Your task to perform on an android device: Clear all items from cart on ebay.com. Add macbook air to the cart on ebay.com, then select checkout. Image 0: 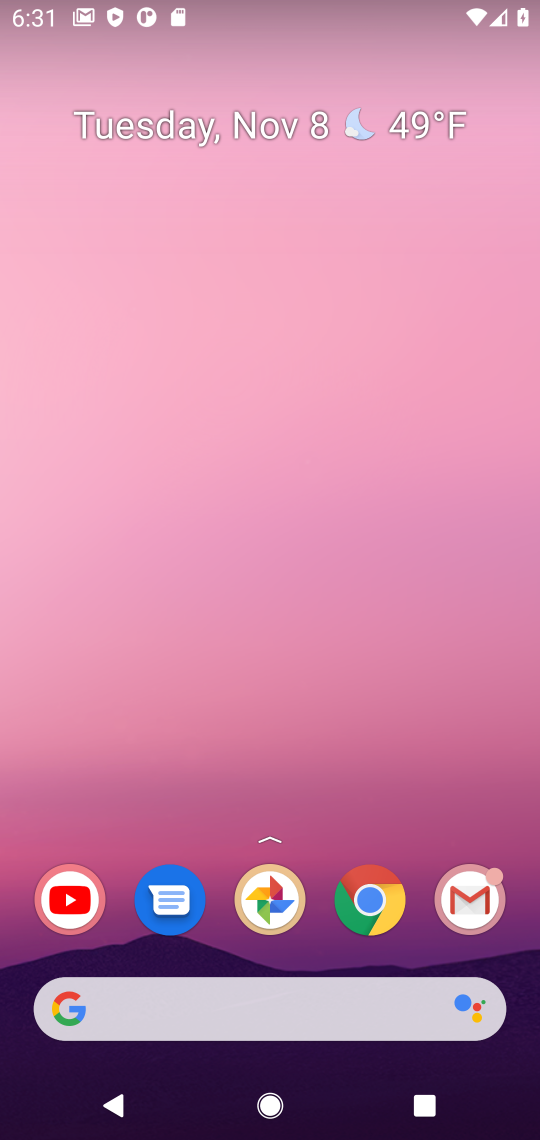
Step 0: click (348, 892)
Your task to perform on an android device: Clear all items from cart on ebay.com. Add macbook air to the cart on ebay.com, then select checkout. Image 1: 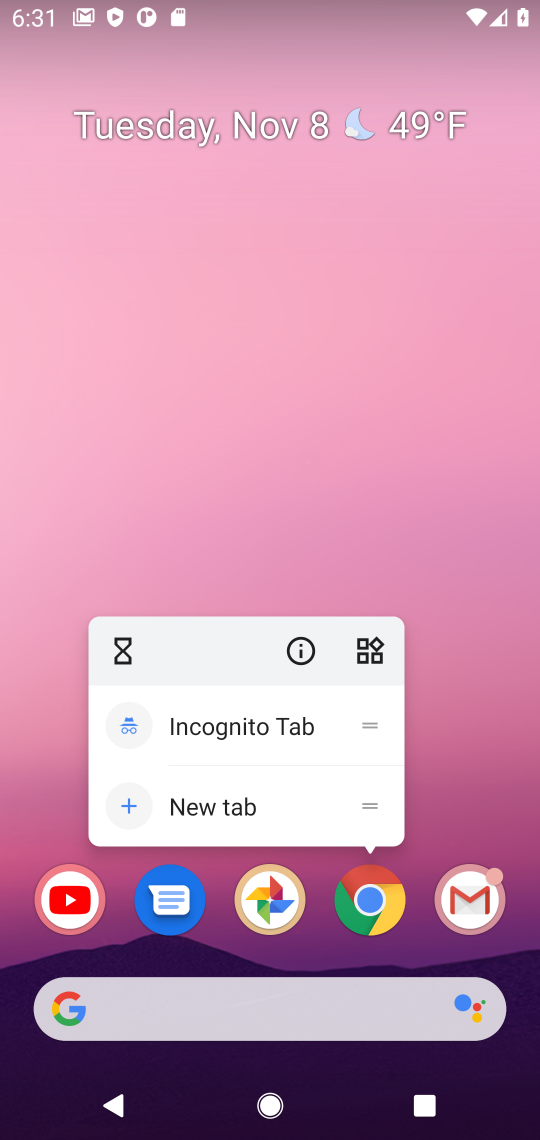
Step 1: click (371, 895)
Your task to perform on an android device: Clear all items from cart on ebay.com. Add macbook air to the cart on ebay.com, then select checkout. Image 2: 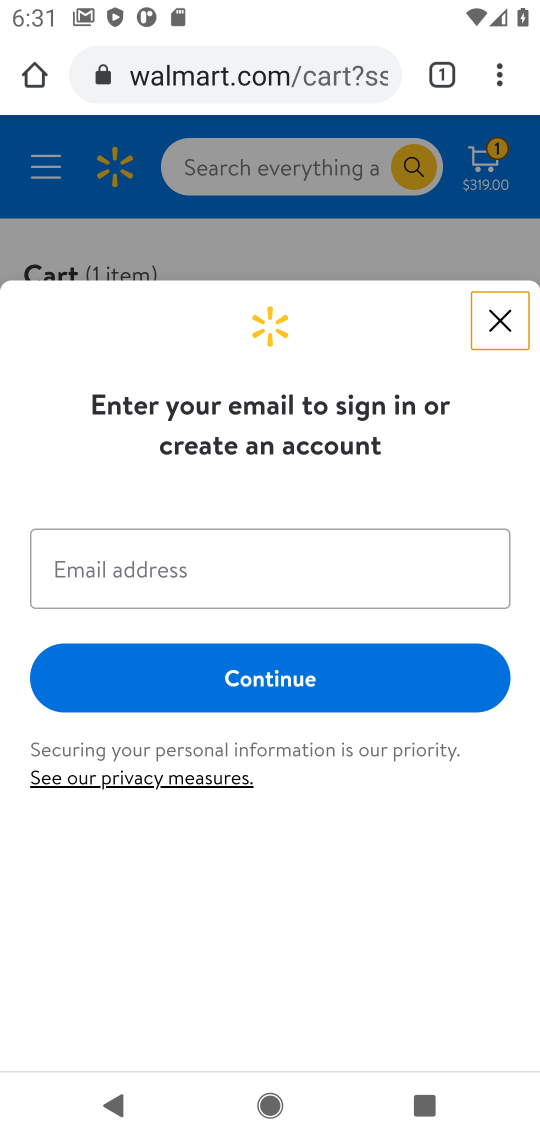
Step 2: click (293, 73)
Your task to perform on an android device: Clear all items from cart on ebay.com. Add macbook air to the cart on ebay.com, then select checkout. Image 3: 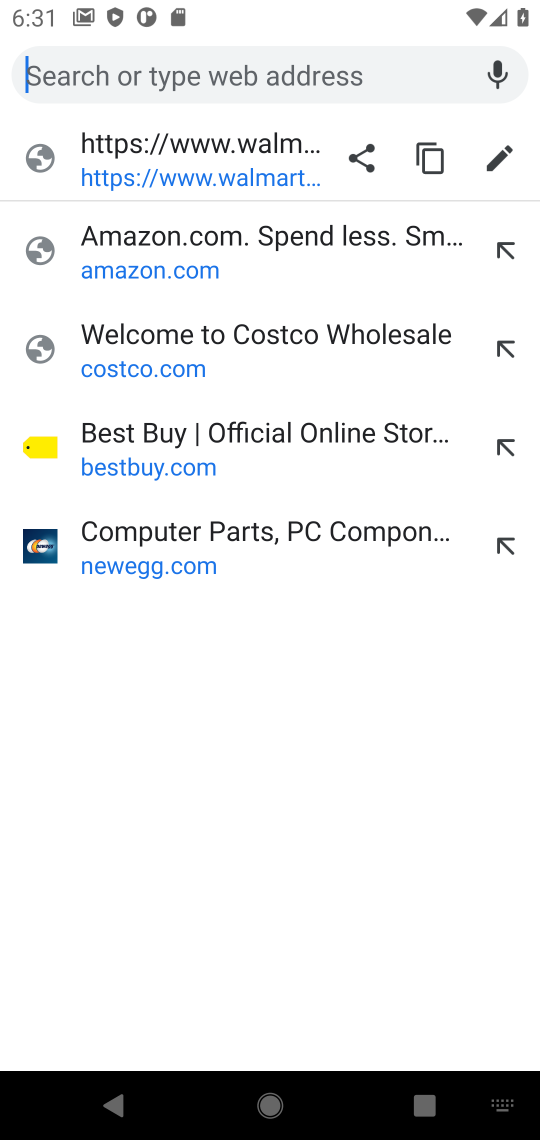
Step 3: type "ebay.com"
Your task to perform on an android device: Clear all items from cart on ebay.com. Add macbook air to the cart on ebay.com, then select checkout. Image 4: 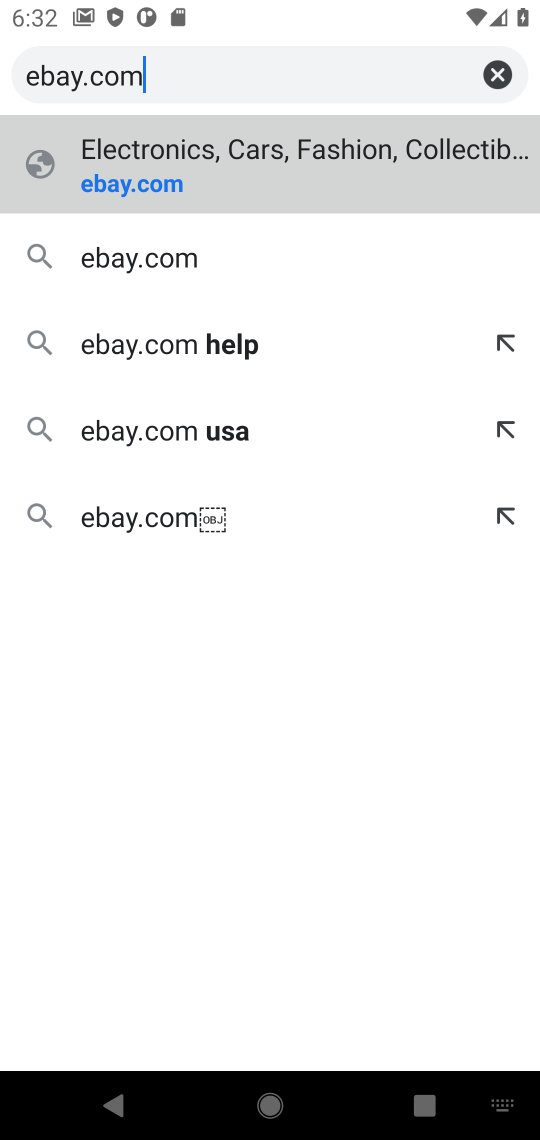
Step 4: press enter
Your task to perform on an android device: Clear all items from cart on ebay.com. Add macbook air to the cart on ebay.com, then select checkout. Image 5: 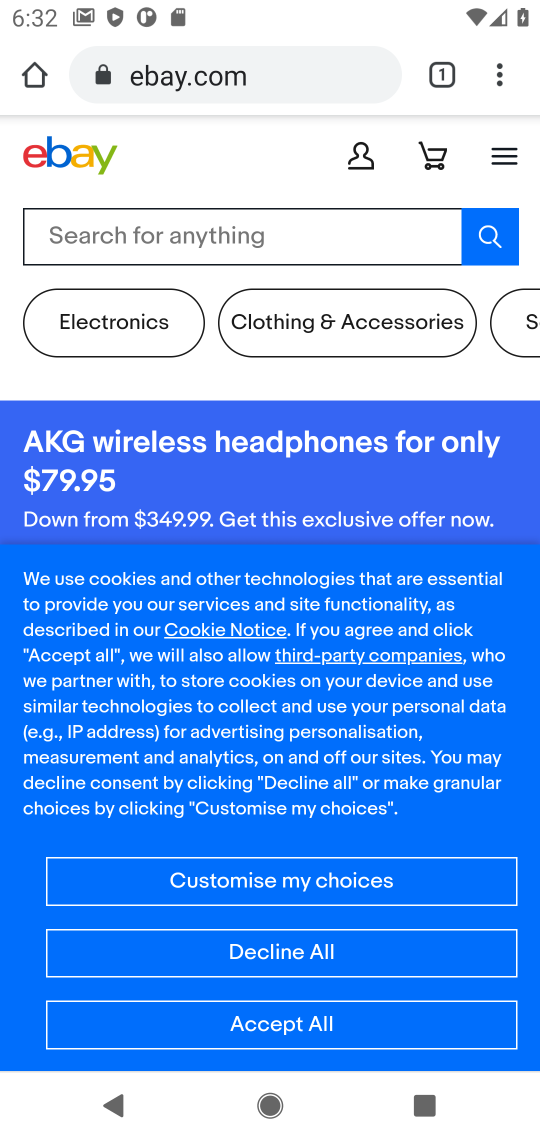
Step 5: click (432, 145)
Your task to perform on an android device: Clear all items from cart on ebay.com. Add macbook air to the cart on ebay.com, then select checkout. Image 6: 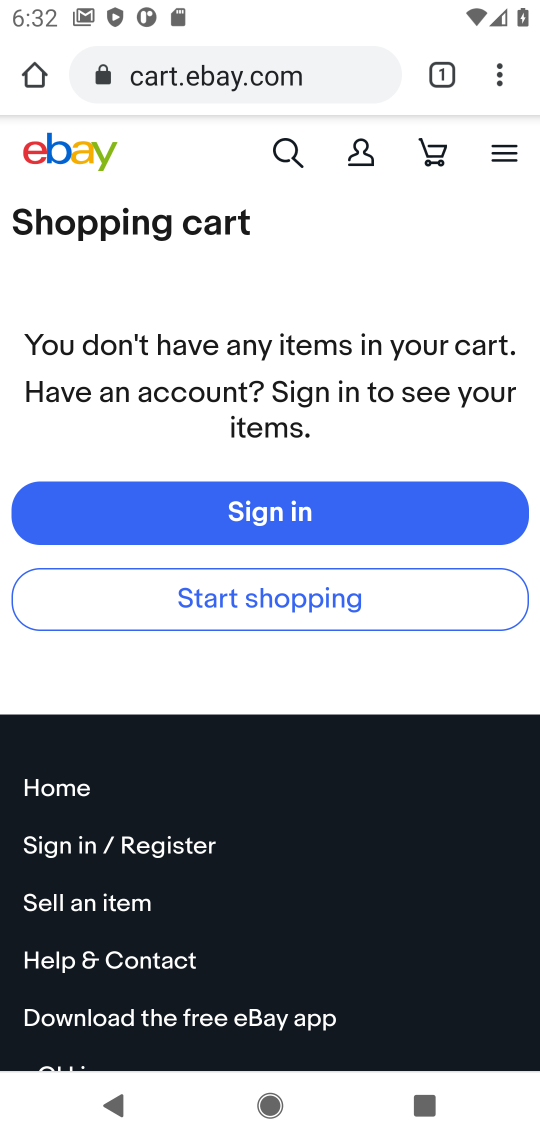
Step 6: click (293, 169)
Your task to perform on an android device: Clear all items from cart on ebay.com. Add macbook air to the cart on ebay.com, then select checkout. Image 7: 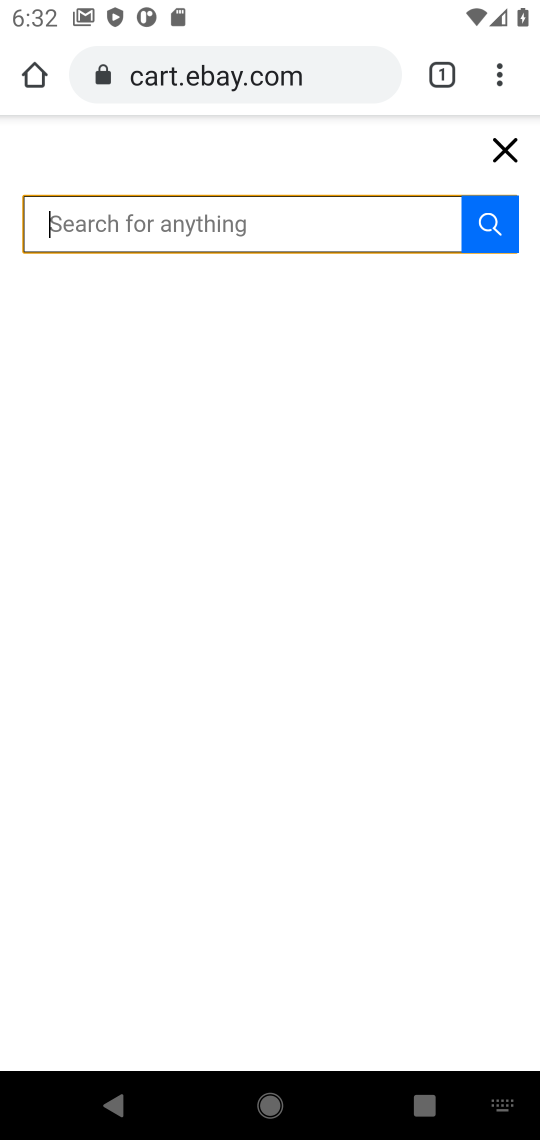
Step 7: type "macbook air "
Your task to perform on an android device: Clear all items from cart on ebay.com. Add macbook air to the cart on ebay.com, then select checkout. Image 8: 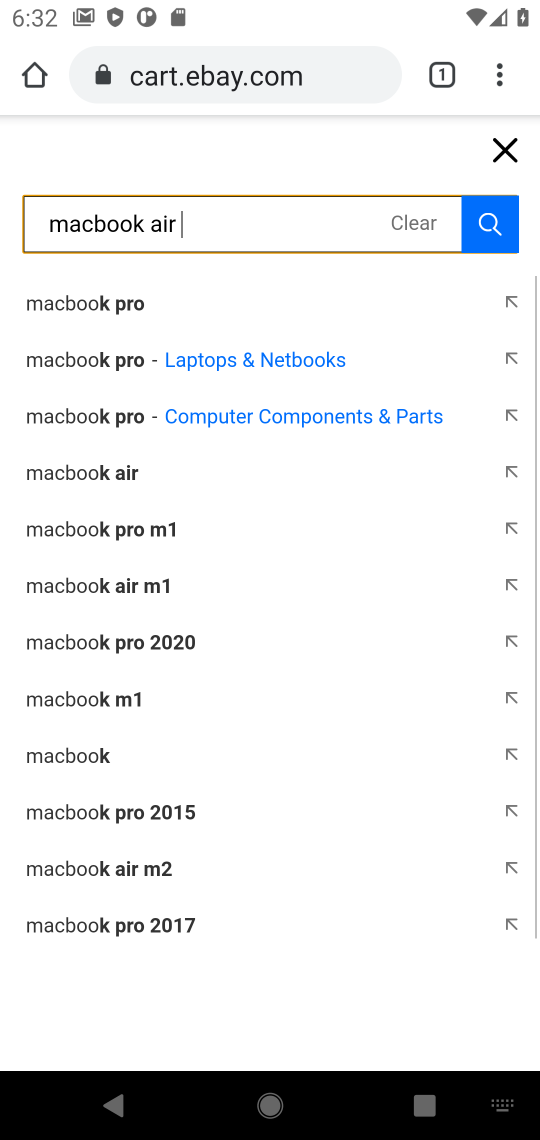
Step 8: type ""
Your task to perform on an android device: Clear all items from cart on ebay.com. Add macbook air to the cart on ebay.com, then select checkout. Image 9: 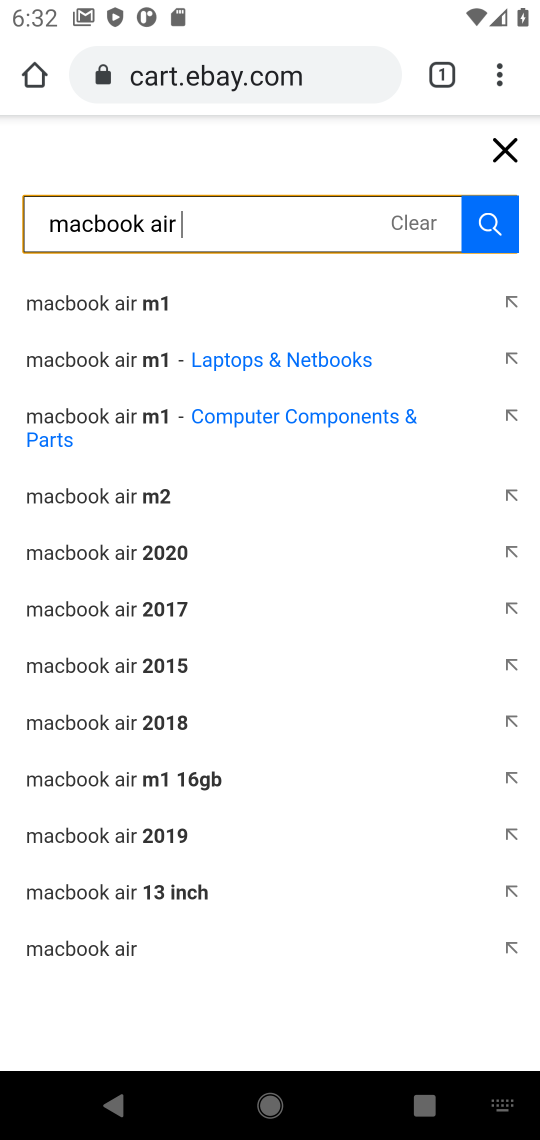
Step 9: click (467, 235)
Your task to perform on an android device: Clear all items from cart on ebay.com. Add macbook air to the cart on ebay.com, then select checkout. Image 10: 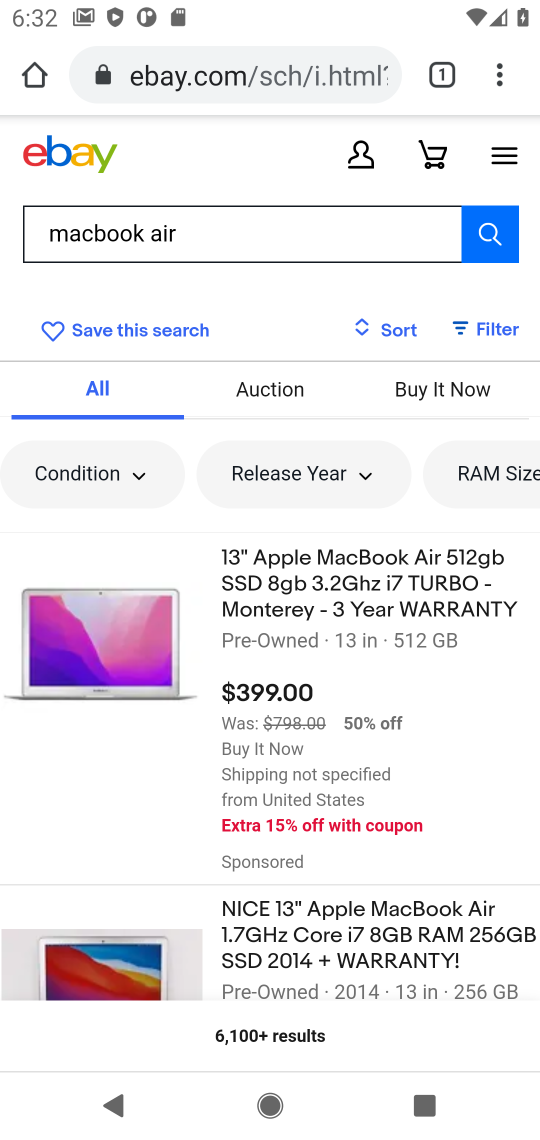
Step 10: click (328, 598)
Your task to perform on an android device: Clear all items from cart on ebay.com. Add macbook air to the cart on ebay.com, then select checkout. Image 11: 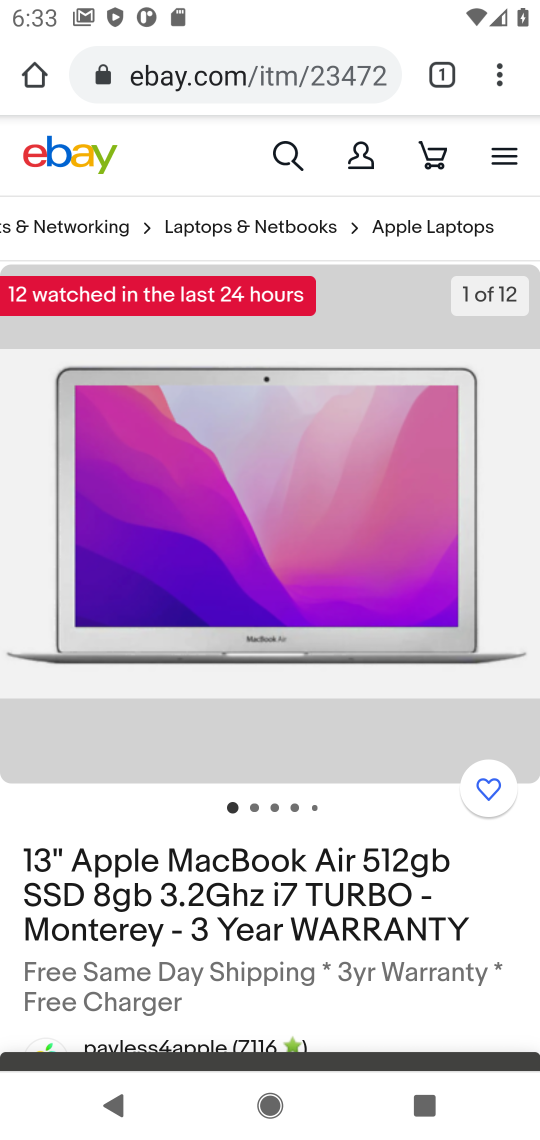
Step 11: drag from (172, 975) to (36, 449)
Your task to perform on an android device: Clear all items from cart on ebay.com. Add macbook air to the cart on ebay.com, then select checkout. Image 12: 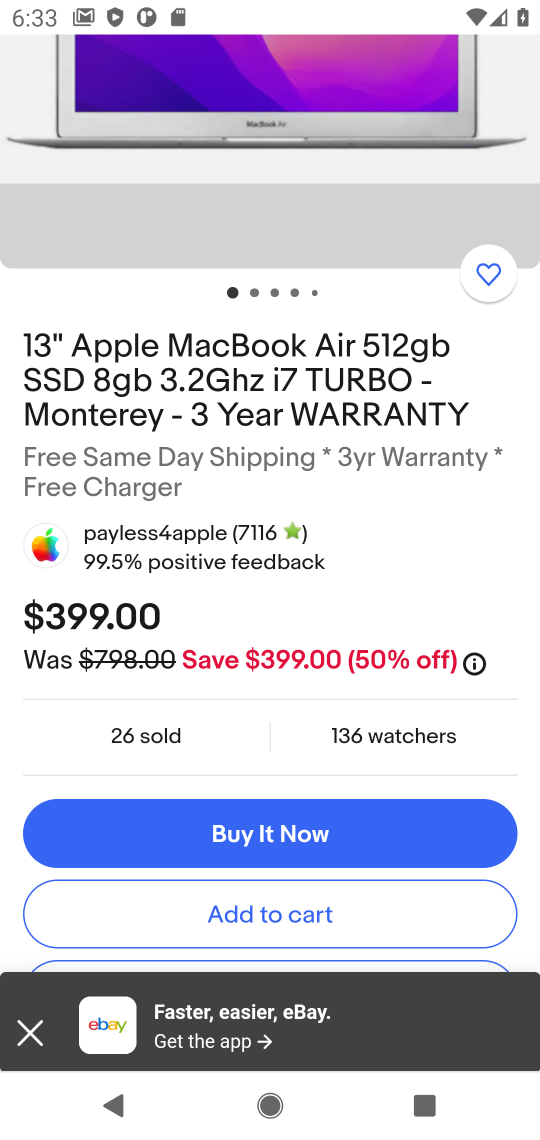
Step 12: click (192, 904)
Your task to perform on an android device: Clear all items from cart on ebay.com. Add macbook air to the cart on ebay.com, then select checkout. Image 13: 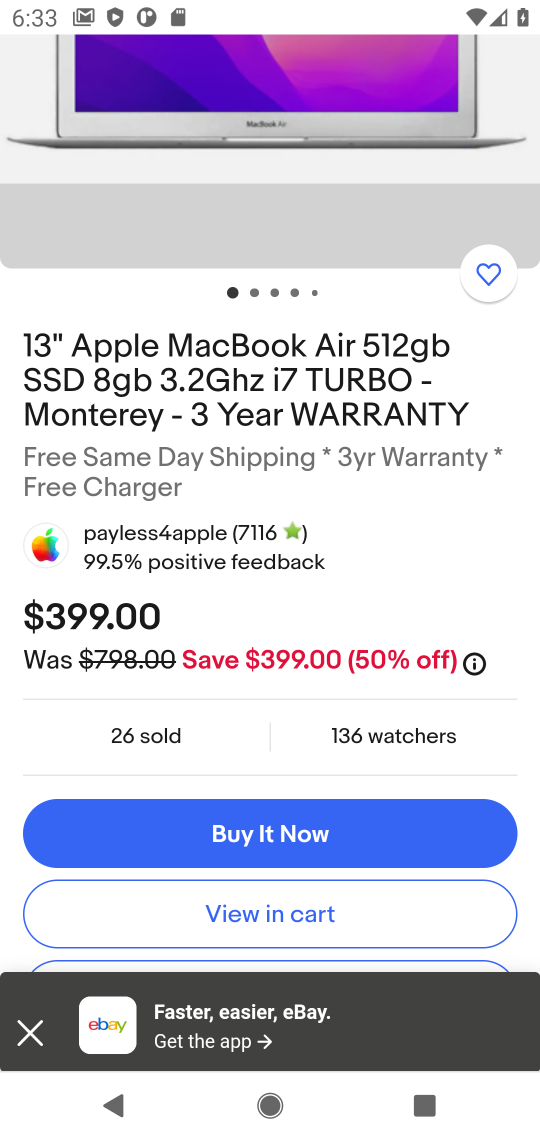
Step 13: click (190, 902)
Your task to perform on an android device: Clear all items from cart on ebay.com. Add macbook air to the cart on ebay.com, then select checkout. Image 14: 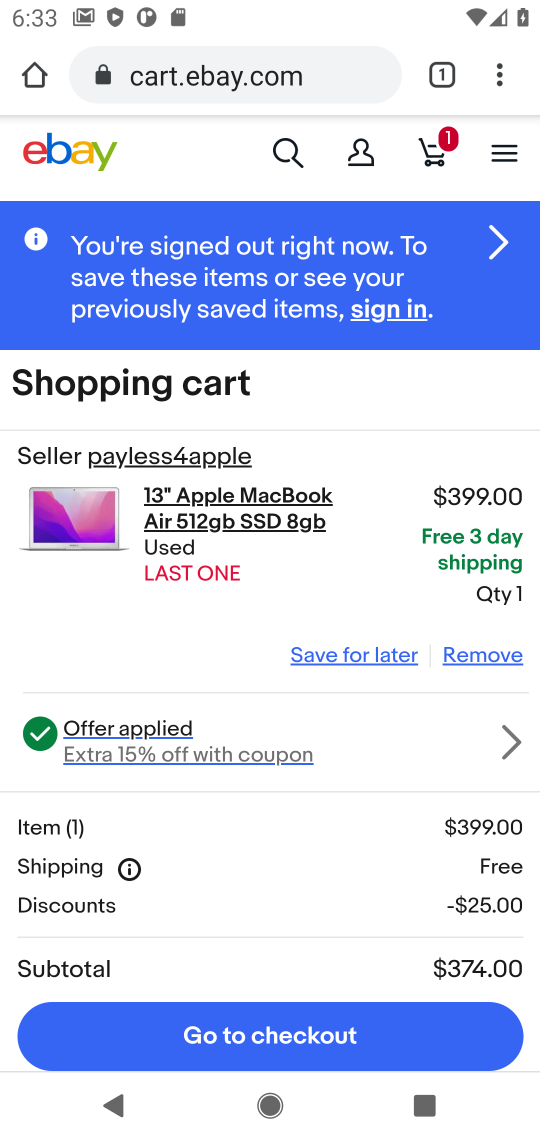
Step 14: click (335, 1036)
Your task to perform on an android device: Clear all items from cart on ebay.com. Add macbook air to the cart on ebay.com, then select checkout. Image 15: 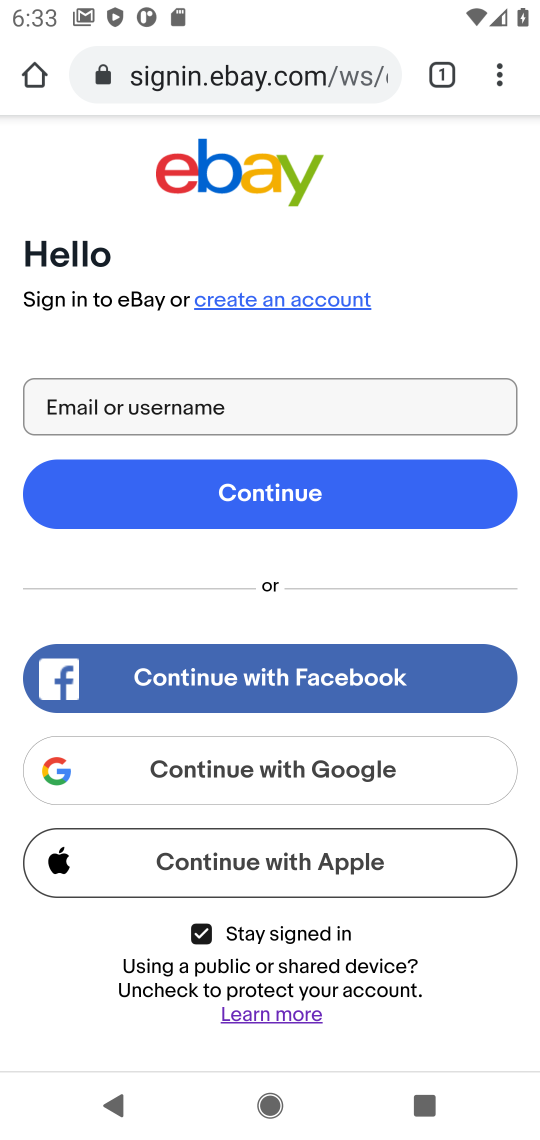
Step 15: task complete